Your task to perform on an android device: open chrome and create a bookmark for the current page Image 0: 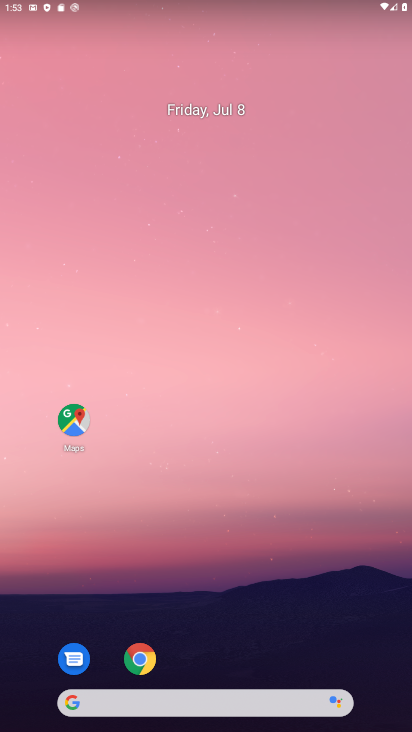
Step 0: press home button
Your task to perform on an android device: open chrome and create a bookmark for the current page Image 1: 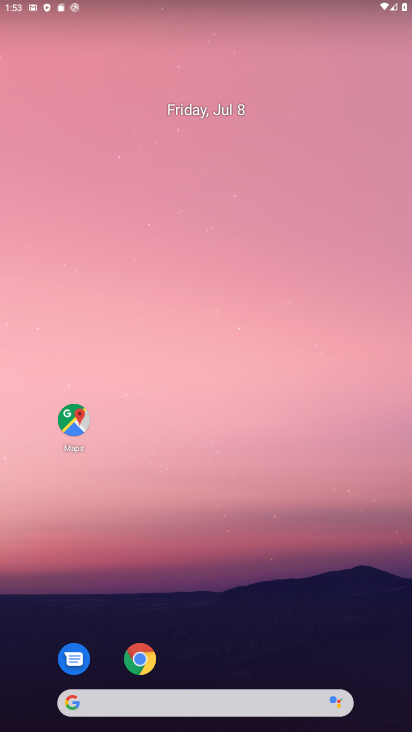
Step 1: click (148, 648)
Your task to perform on an android device: open chrome and create a bookmark for the current page Image 2: 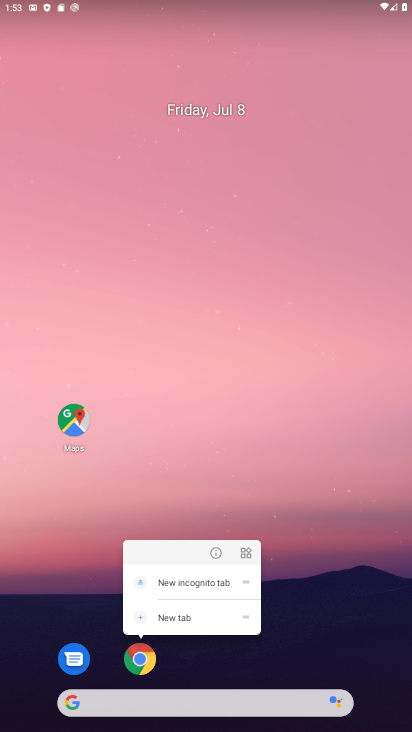
Step 2: click (148, 648)
Your task to perform on an android device: open chrome and create a bookmark for the current page Image 3: 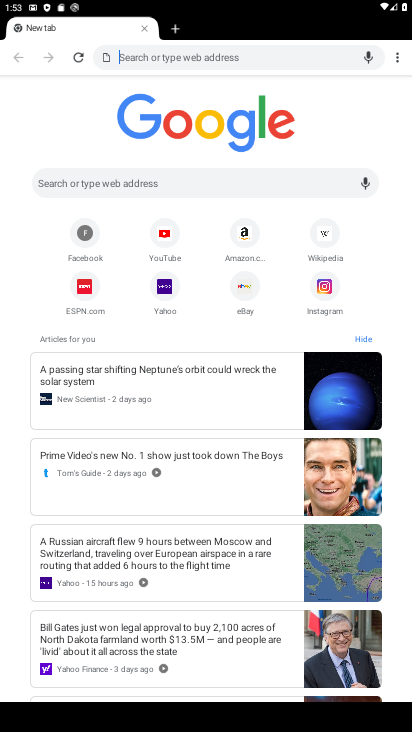
Step 3: drag from (401, 60) to (270, 154)
Your task to perform on an android device: open chrome and create a bookmark for the current page Image 4: 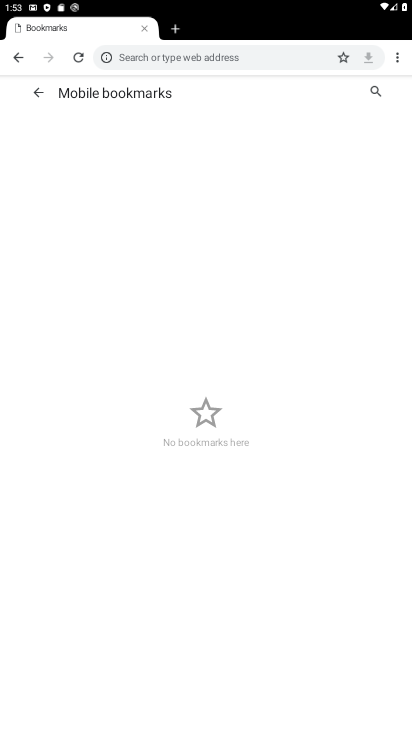
Step 4: click (34, 98)
Your task to perform on an android device: open chrome and create a bookmark for the current page Image 5: 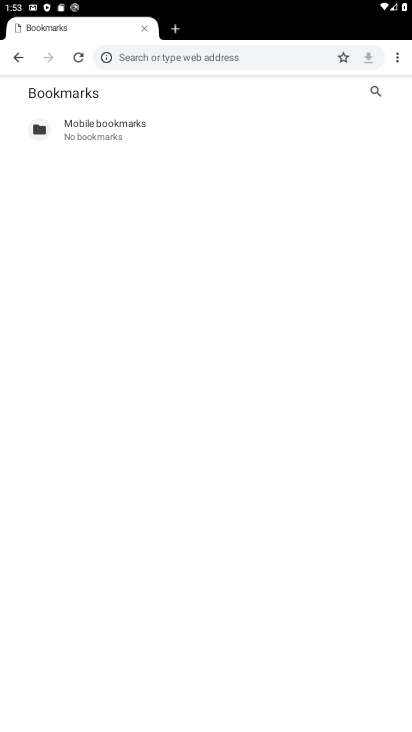
Step 5: click (11, 55)
Your task to perform on an android device: open chrome and create a bookmark for the current page Image 6: 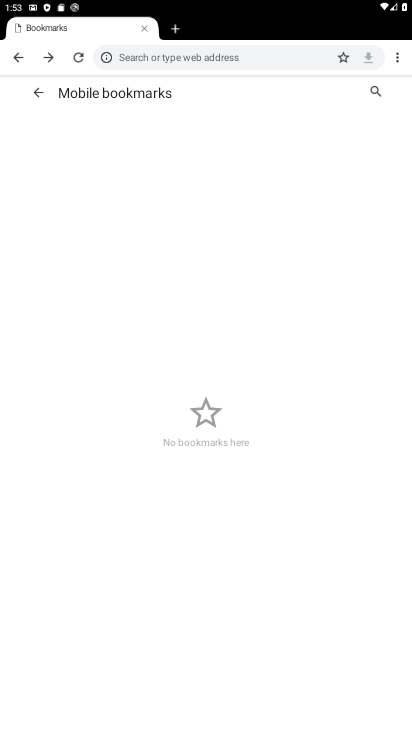
Step 6: click (11, 55)
Your task to perform on an android device: open chrome and create a bookmark for the current page Image 7: 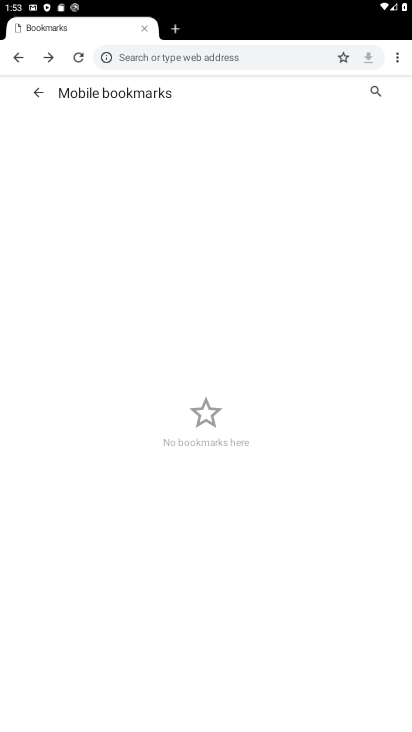
Step 7: click (11, 55)
Your task to perform on an android device: open chrome and create a bookmark for the current page Image 8: 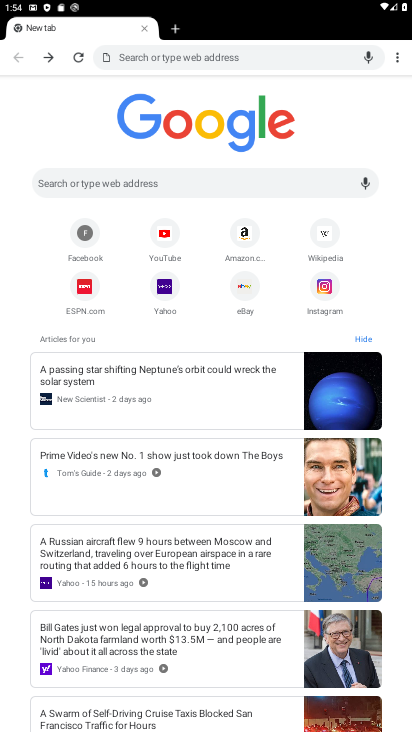
Step 8: drag from (396, 59) to (10, 140)
Your task to perform on an android device: open chrome and create a bookmark for the current page Image 9: 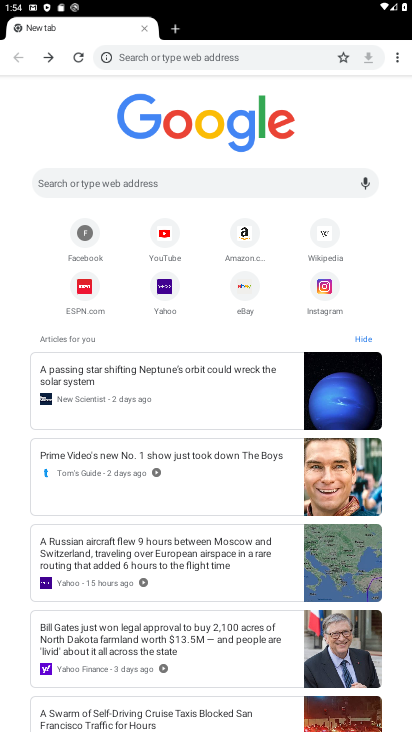
Step 9: click (347, 54)
Your task to perform on an android device: open chrome and create a bookmark for the current page Image 10: 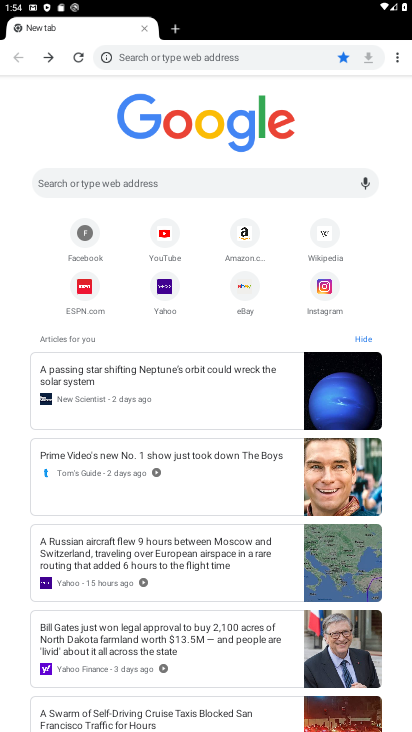
Step 10: task complete